Your task to perform on an android device: toggle data saver in the chrome app Image 0: 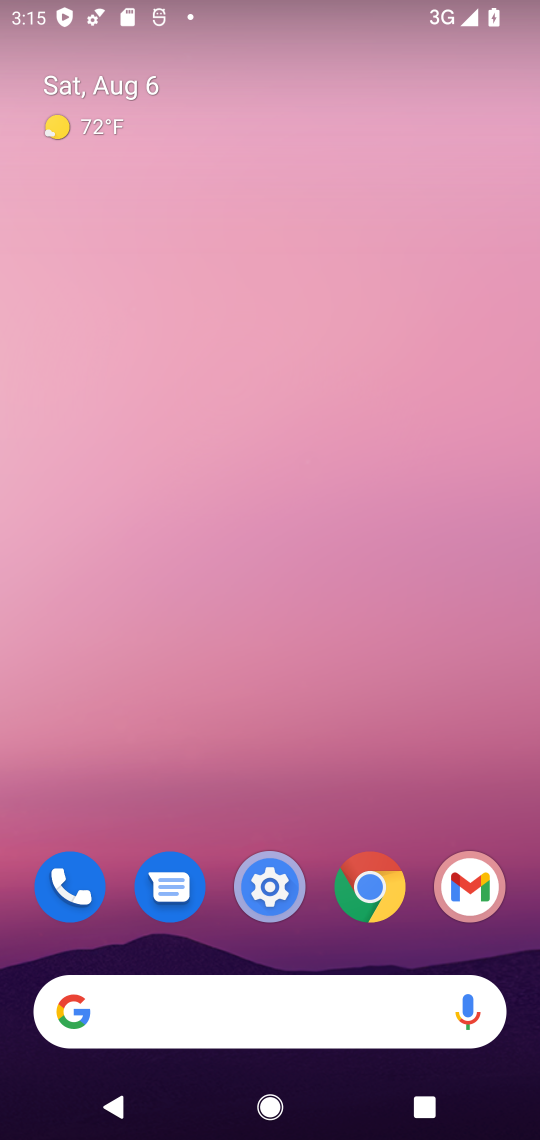
Step 0: press home button
Your task to perform on an android device: toggle data saver in the chrome app Image 1: 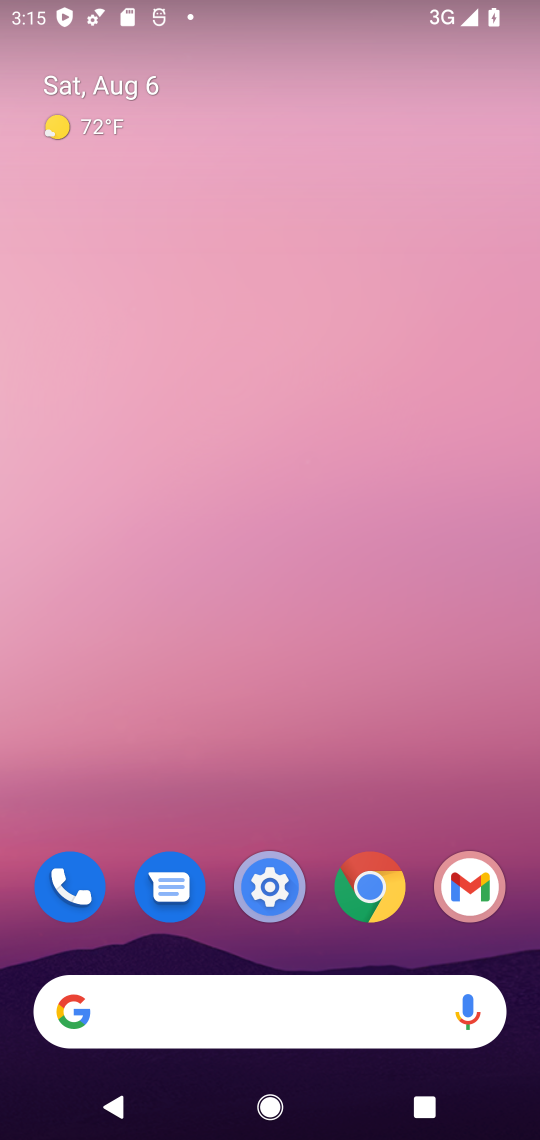
Step 1: drag from (342, 784) to (374, 298)
Your task to perform on an android device: toggle data saver in the chrome app Image 2: 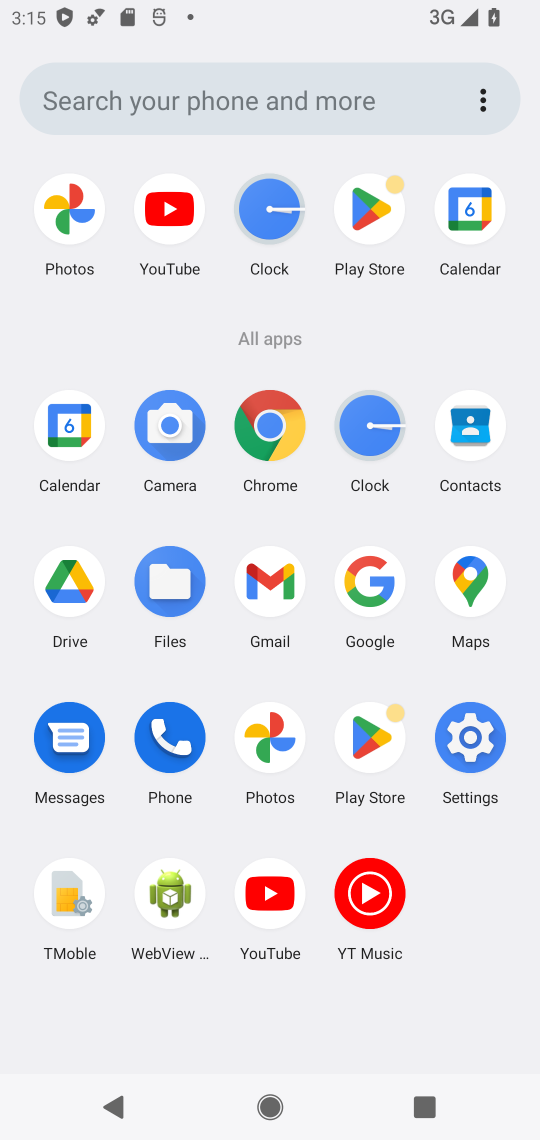
Step 2: click (275, 422)
Your task to perform on an android device: toggle data saver in the chrome app Image 3: 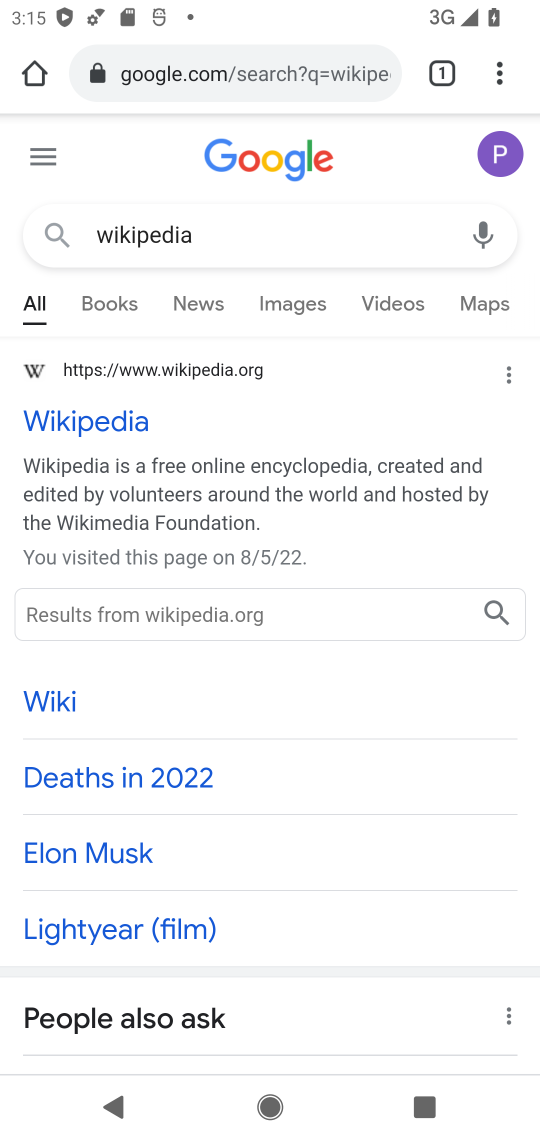
Step 3: click (499, 76)
Your task to perform on an android device: toggle data saver in the chrome app Image 4: 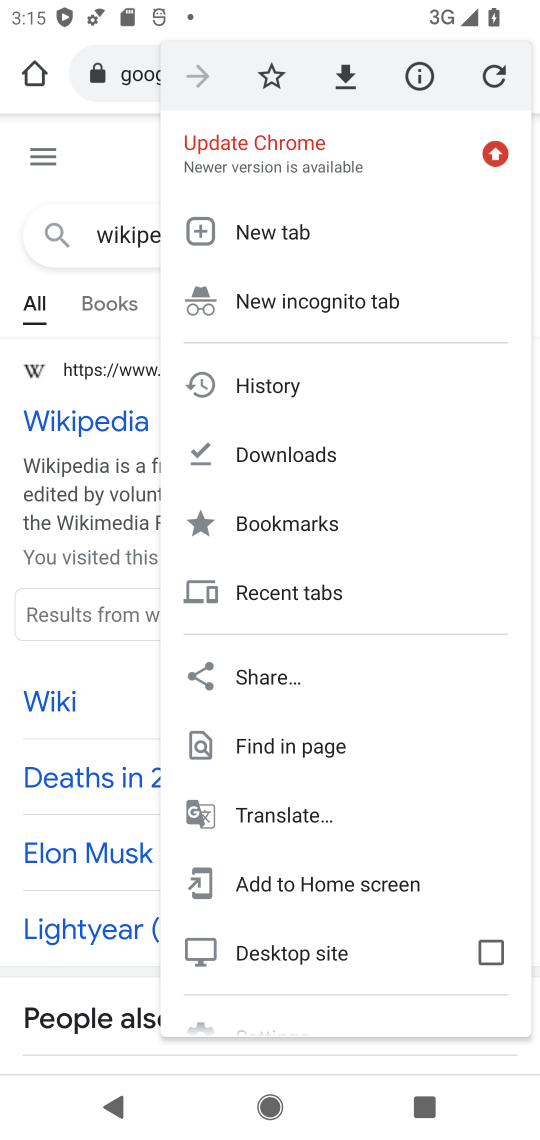
Step 4: drag from (441, 605) to (441, 500)
Your task to perform on an android device: toggle data saver in the chrome app Image 5: 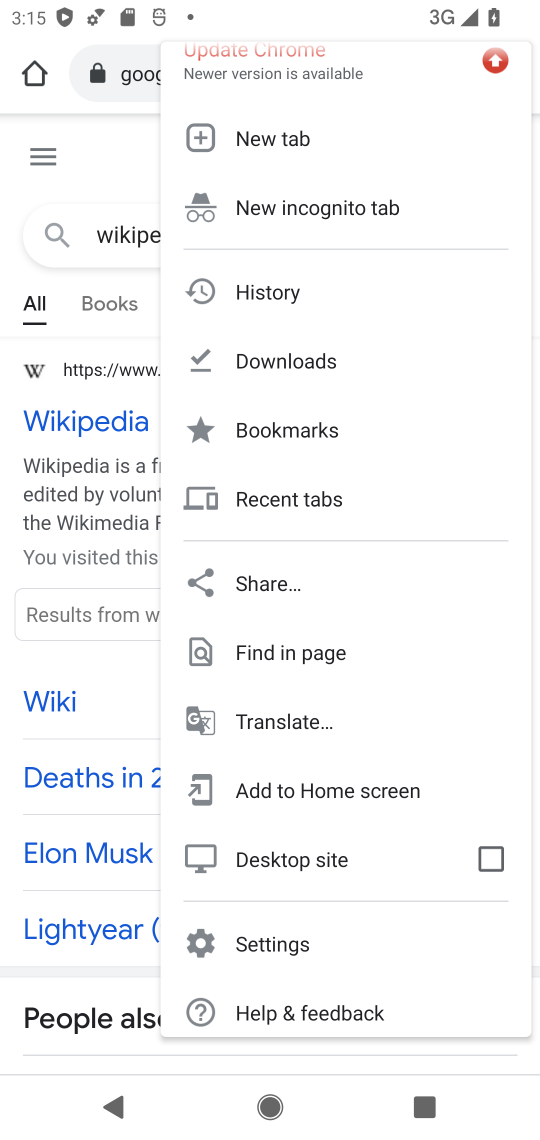
Step 5: drag from (435, 686) to (442, 552)
Your task to perform on an android device: toggle data saver in the chrome app Image 6: 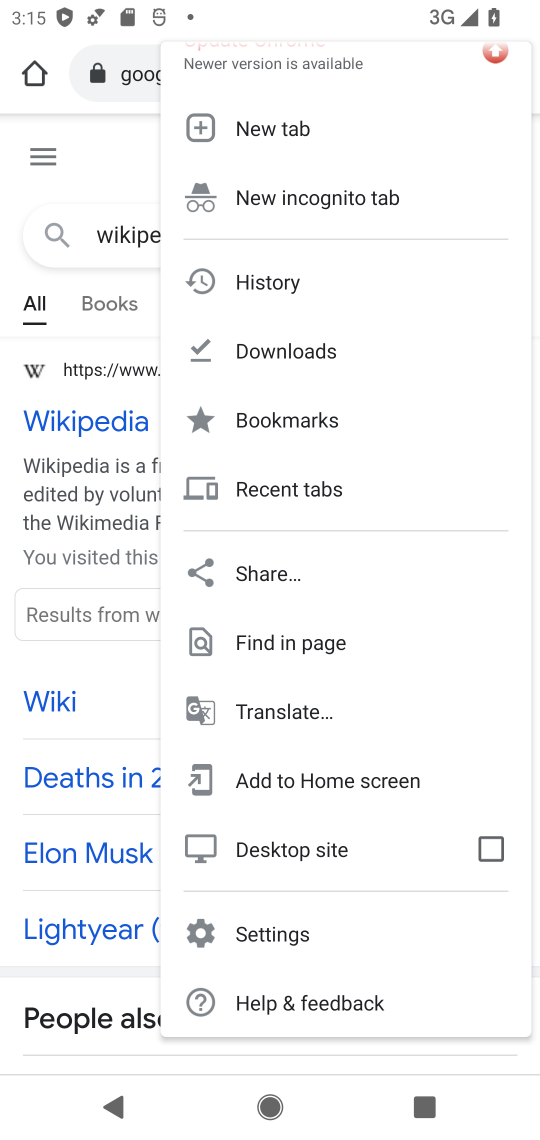
Step 6: click (404, 944)
Your task to perform on an android device: toggle data saver in the chrome app Image 7: 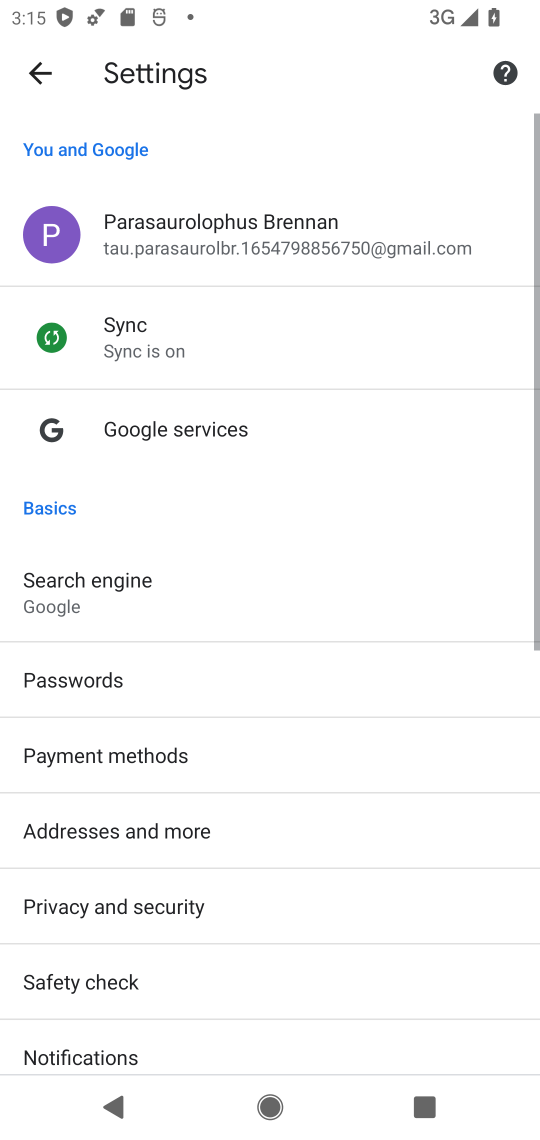
Step 7: drag from (402, 921) to (404, 789)
Your task to perform on an android device: toggle data saver in the chrome app Image 8: 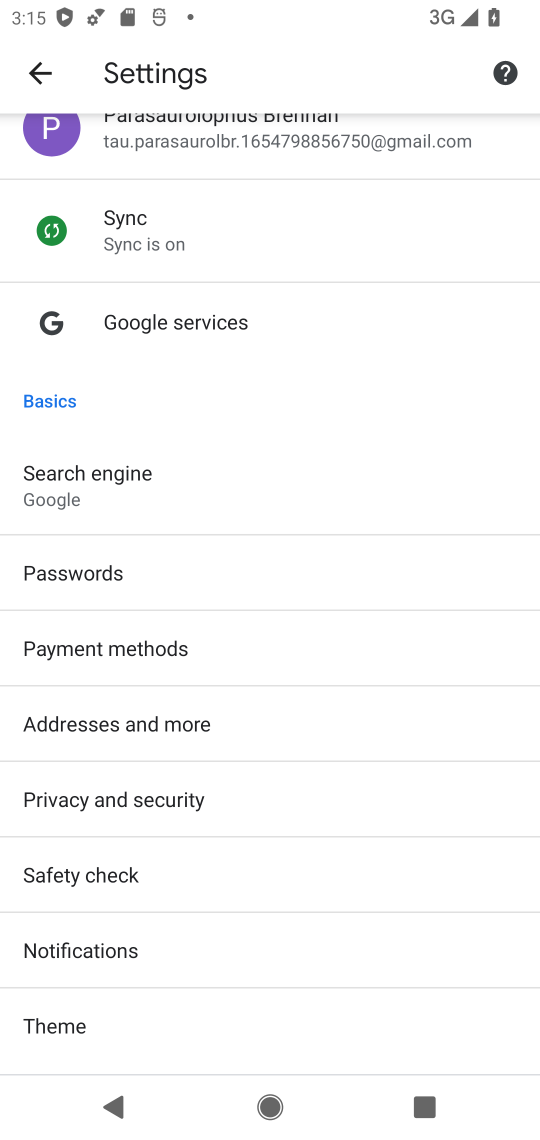
Step 8: drag from (404, 927) to (414, 801)
Your task to perform on an android device: toggle data saver in the chrome app Image 9: 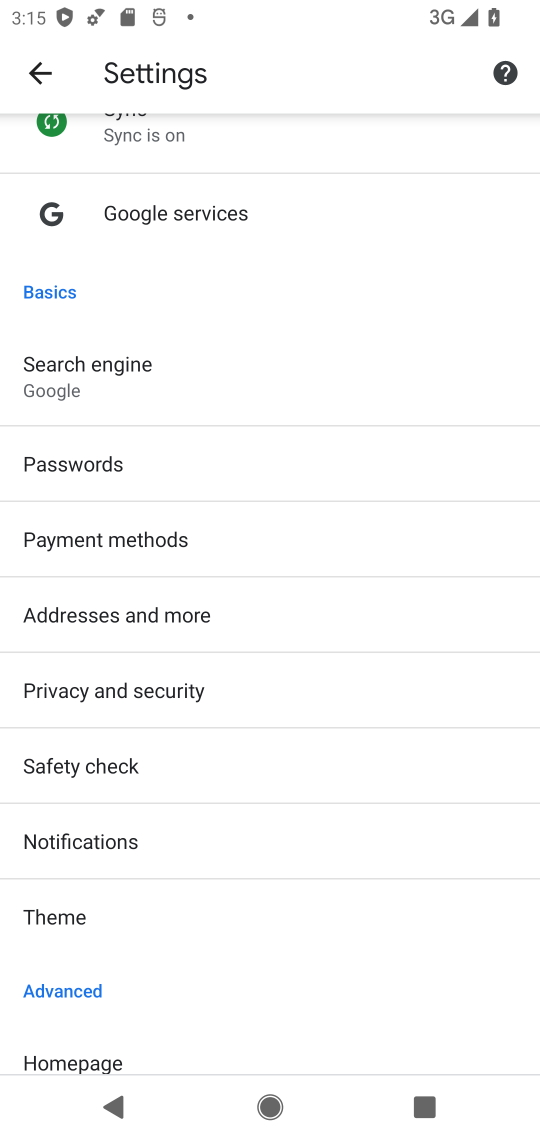
Step 9: drag from (399, 920) to (420, 778)
Your task to perform on an android device: toggle data saver in the chrome app Image 10: 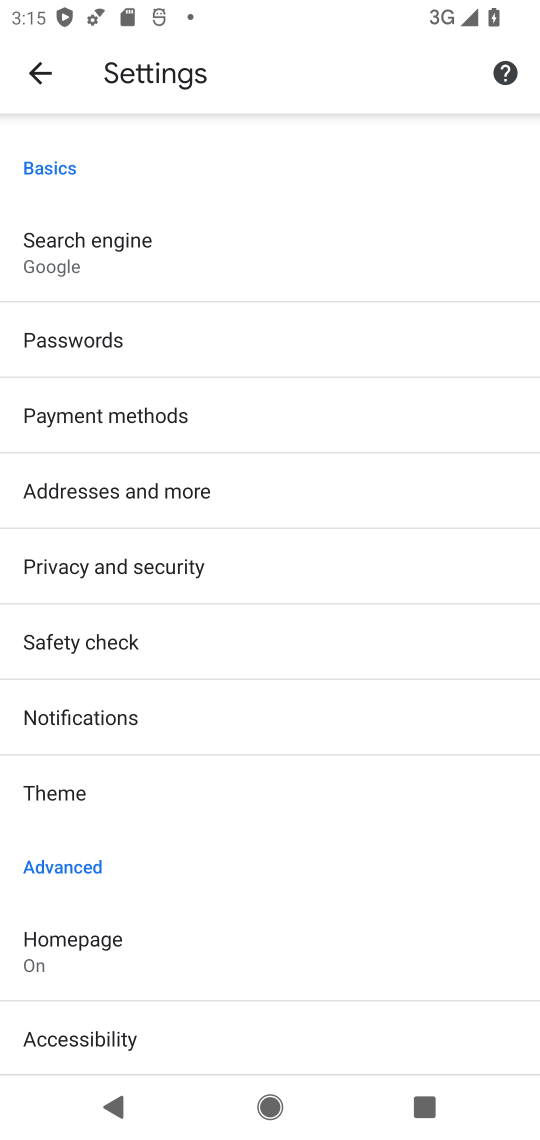
Step 10: drag from (395, 933) to (404, 792)
Your task to perform on an android device: toggle data saver in the chrome app Image 11: 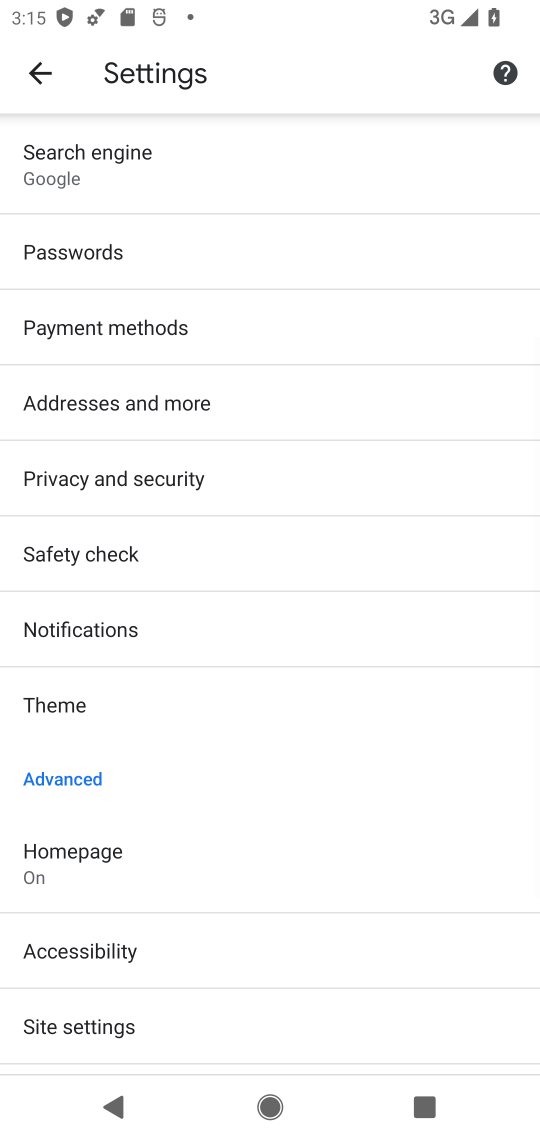
Step 11: drag from (371, 954) to (399, 783)
Your task to perform on an android device: toggle data saver in the chrome app Image 12: 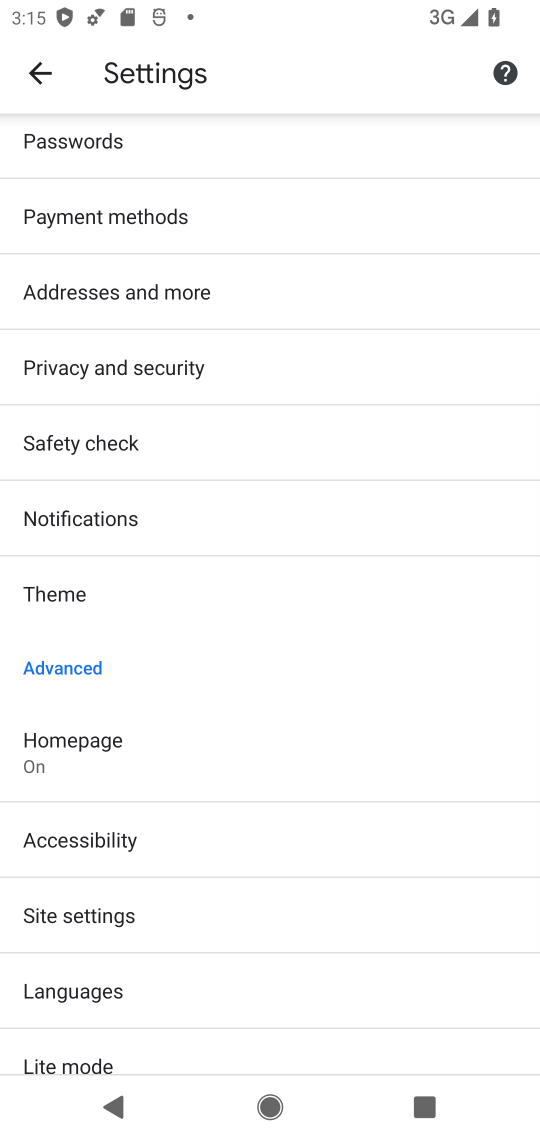
Step 12: drag from (360, 977) to (398, 775)
Your task to perform on an android device: toggle data saver in the chrome app Image 13: 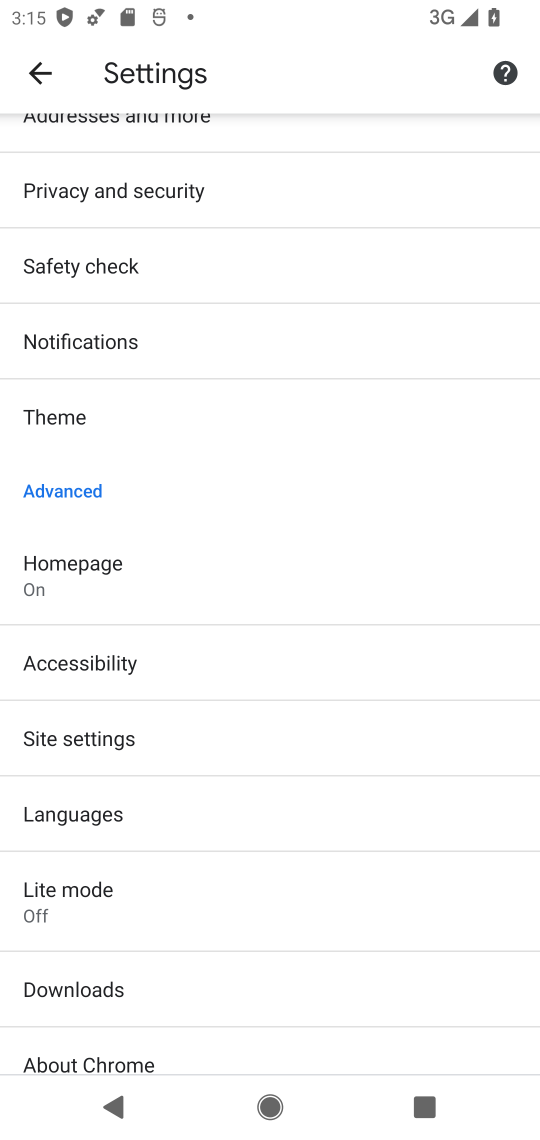
Step 13: drag from (391, 934) to (394, 747)
Your task to perform on an android device: toggle data saver in the chrome app Image 14: 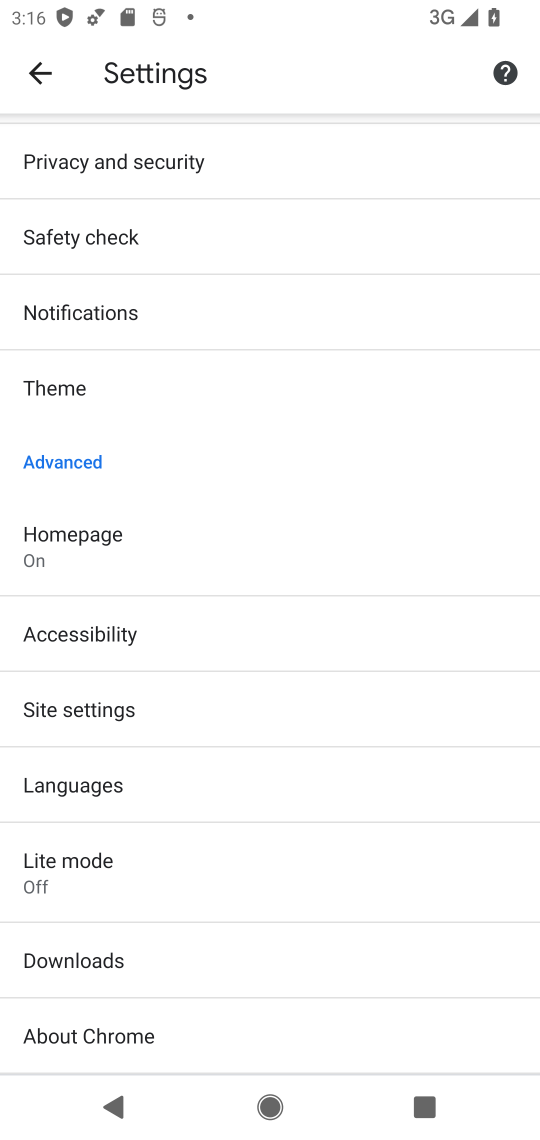
Step 14: click (371, 872)
Your task to perform on an android device: toggle data saver in the chrome app Image 15: 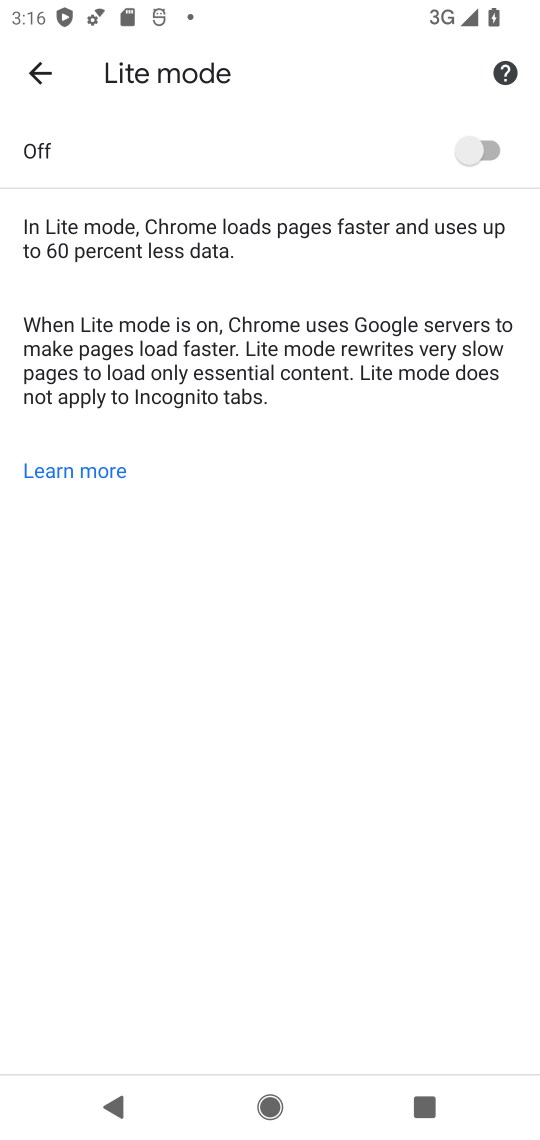
Step 15: click (464, 143)
Your task to perform on an android device: toggle data saver in the chrome app Image 16: 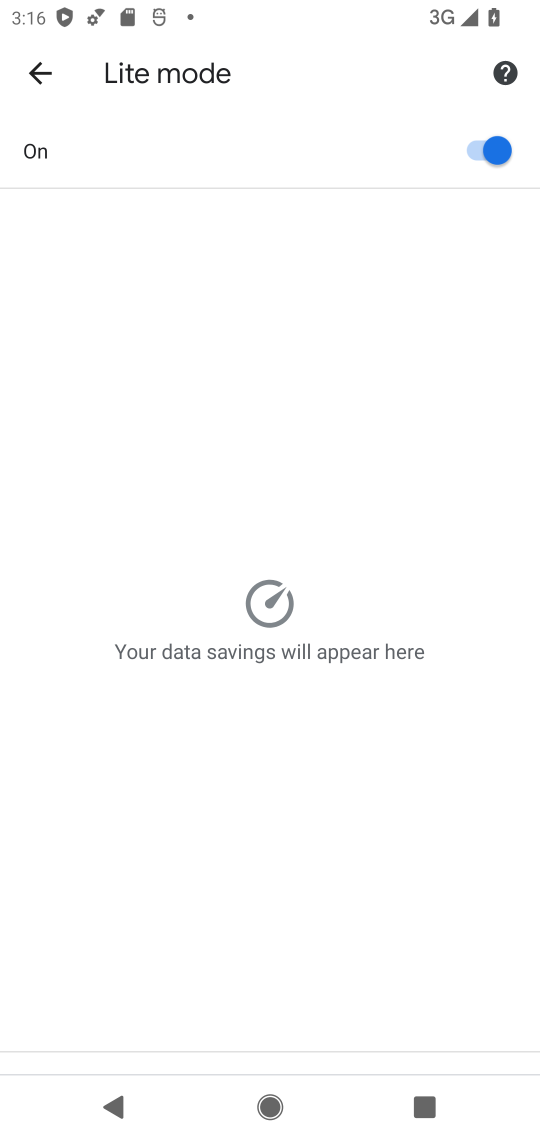
Step 16: task complete